Your task to perform on an android device: Search for vegetarian restaurants on Maps Image 0: 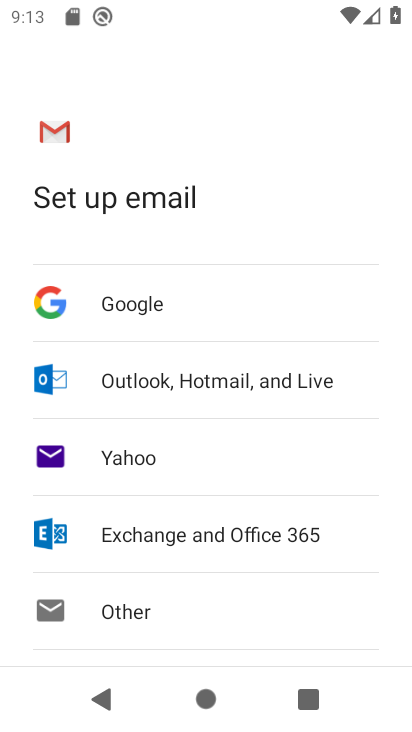
Step 0: press home button
Your task to perform on an android device: Search for vegetarian restaurants on Maps Image 1: 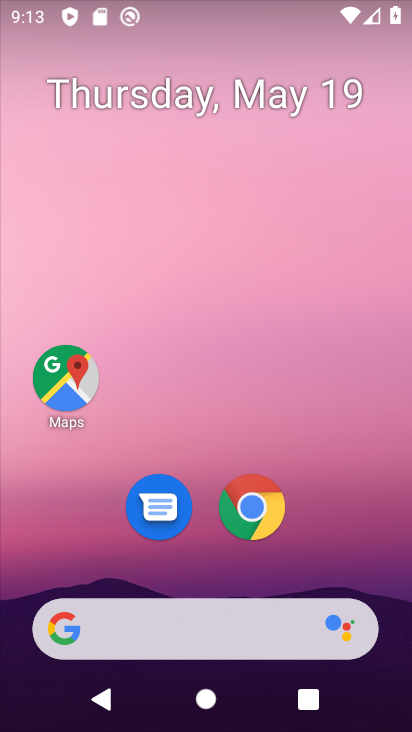
Step 1: click (70, 380)
Your task to perform on an android device: Search for vegetarian restaurants on Maps Image 2: 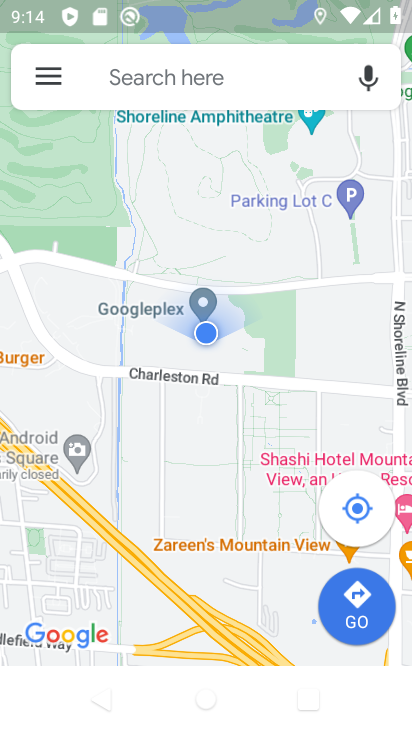
Step 2: click (200, 96)
Your task to perform on an android device: Search for vegetarian restaurants on Maps Image 3: 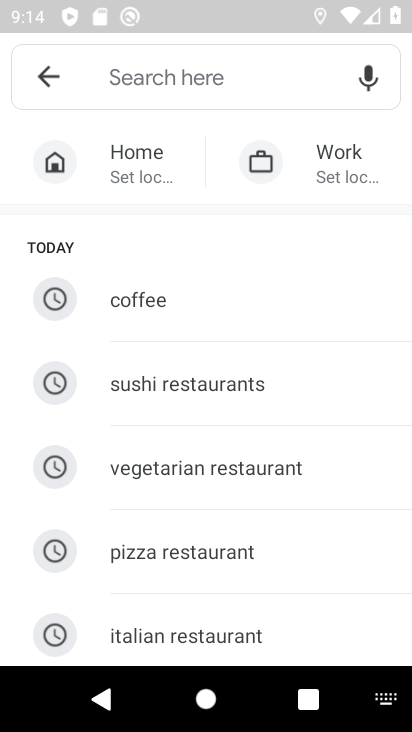
Step 3: type "vegetarian restaurants"
Your task to perform on an android device: Search for vegetarian restaurants on Maps Image 4: 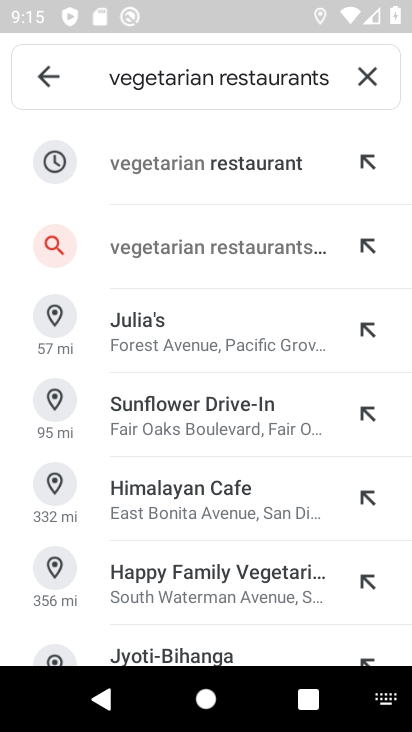
Step 4: click (206, 171)
Your task to perform on an android device: Search for vegetarian restaurants on Maps Image 5: 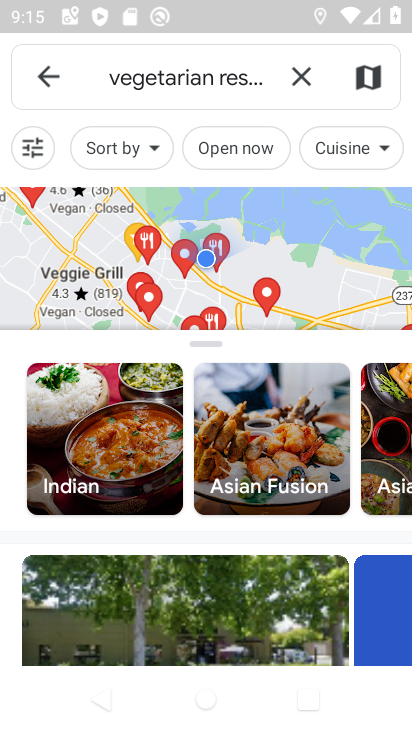
Step 5: task complete